Your task to perform on an android device: turn off wifi Image 0: 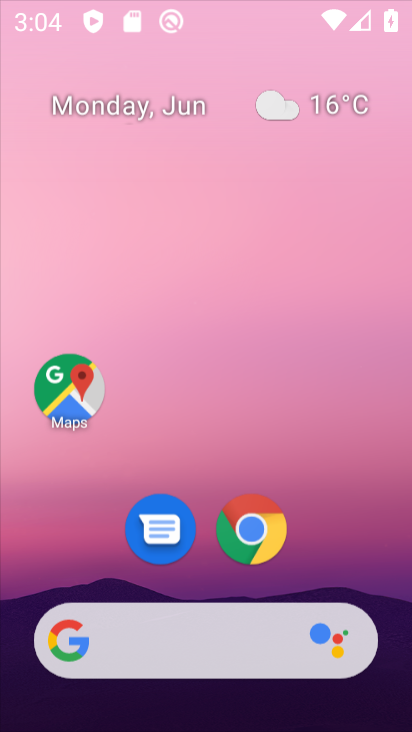
Step 0: click (219, 168)
Your task to perform on an android device: turn off wifi Image 1: 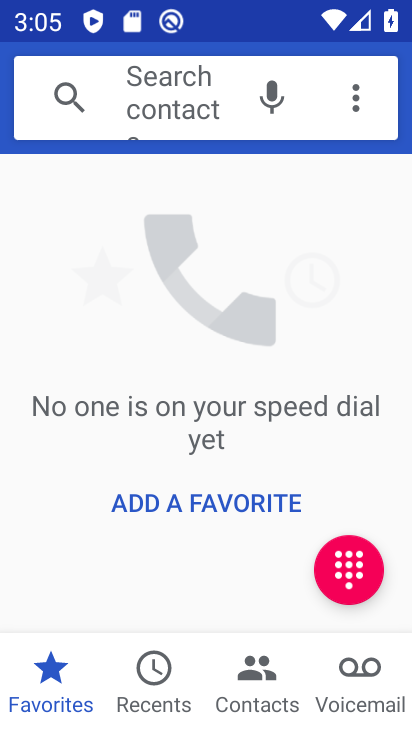
Step 1: press home button
Your task to perform on an android device: turn off wifi Image 2: 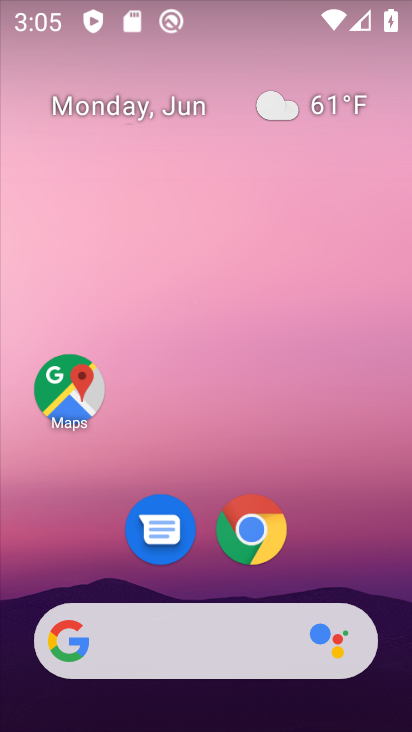
Step 2: press back button
Your task to perform on an android device: turn off wifi Image 3: 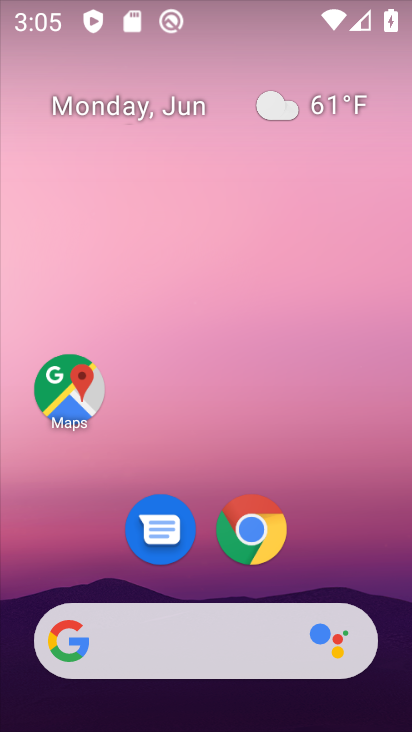
Step 3: click (216, 23)
Your task to perform on an android device: turn off wifi Image 4: 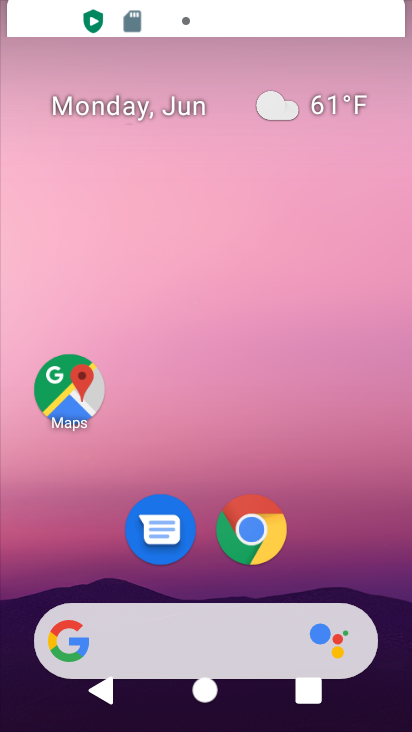
Step 4: drag from (228, 398) to (224, 5)
Your task to perform on an android device: turn off wifi Image 5: 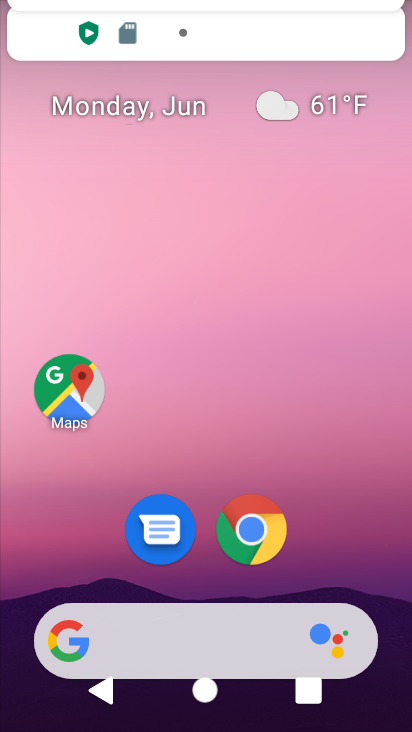
Step 5: drag from (255, 649) to (242, 74)
Your task to perform on an android device: turn off wifi Image 6: 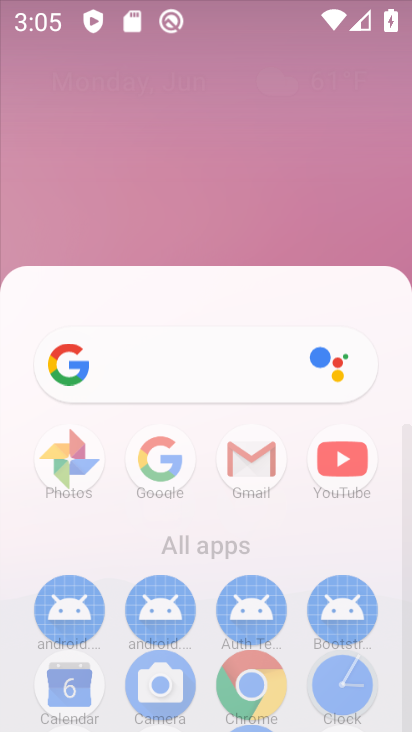
Step 6: drag from (256, 386) to (215, 77)
Your task to perform on an android device: turn off wifi Image 7: 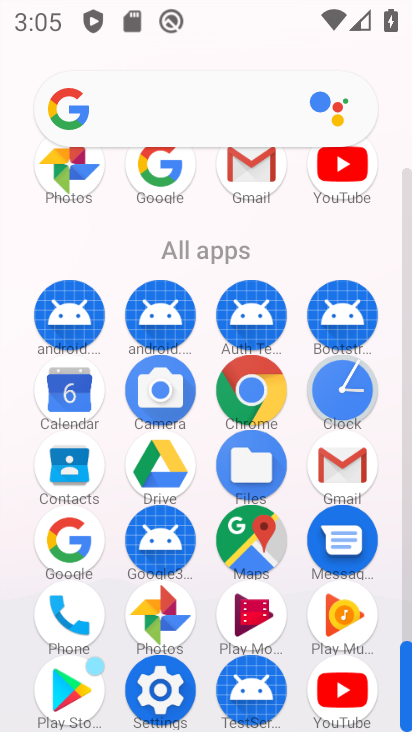
Step 7: drag from (242, 593) to (226, 261)
Your task to perform on an android device: turn off wifi Image 8: 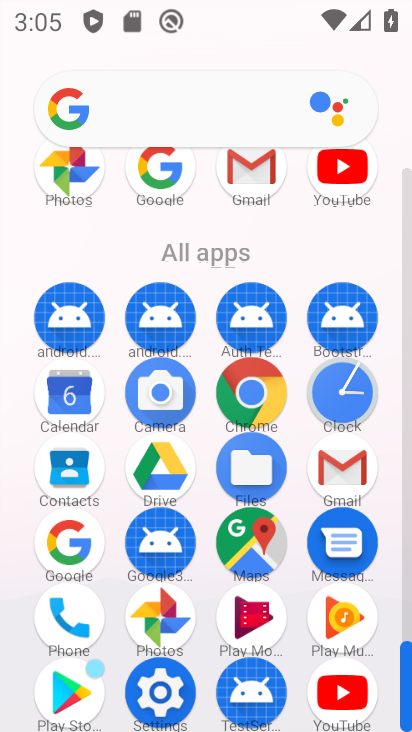
Step 8: drag from (152, 273) to (202, 670)
Your task to perform on an android device: turn off wifi Image 9: 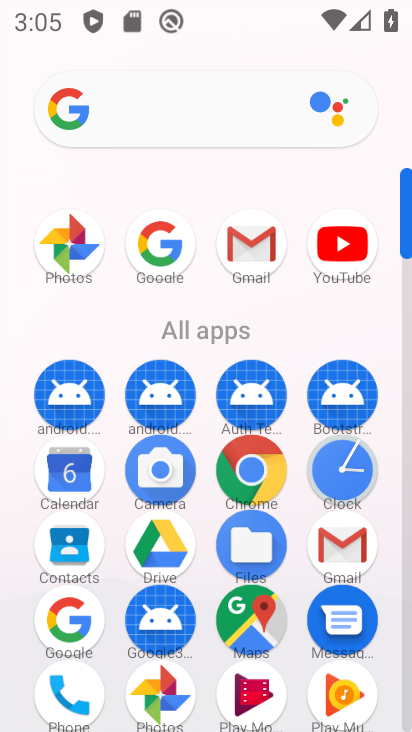
Step 9: drag from (157, 289) to (206, 557)
Your task to perform on an android device: turn off wifi Image 10: 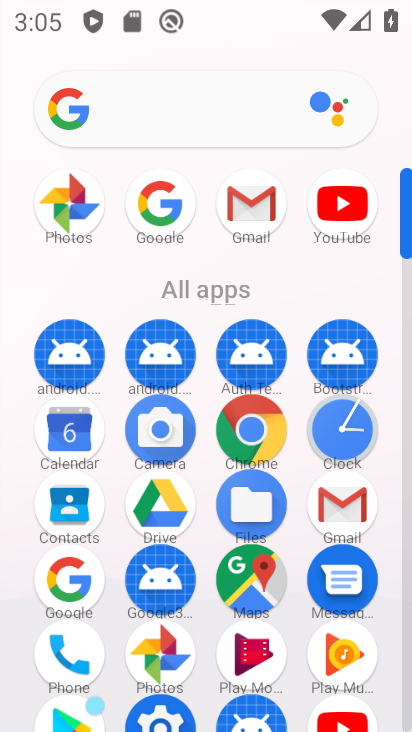
Step 10: drag from (212, 372) to (208, 151)
Your task to perform on an android device: turn off wifi Image 11: 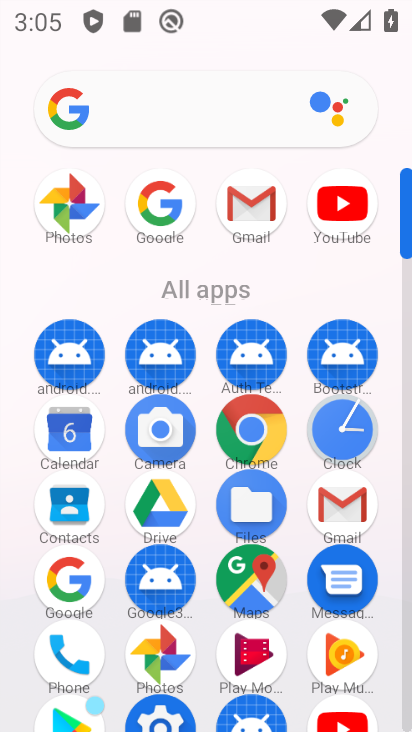
Step 11: drag from (177, 466) to (172, 208)
Your task to perform on an android device: turn off wifi Image 12: 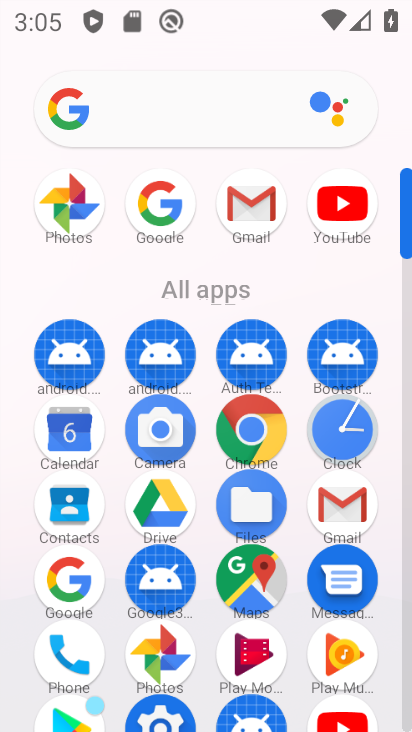
Step 12: click (153, 715)
Your task to perform on an android device: turn off wifi Image 13: 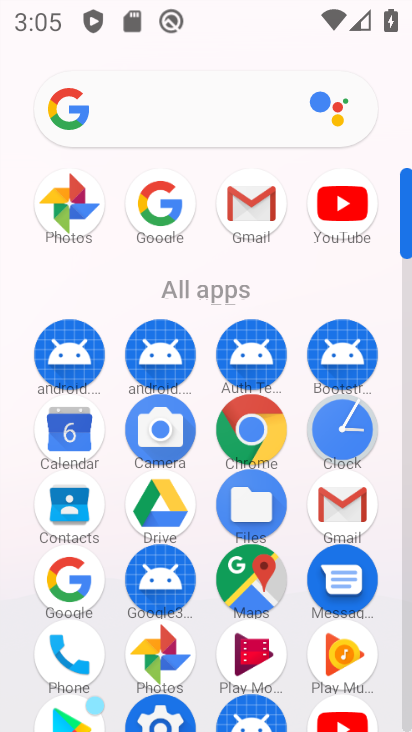
Step 13: click (153, 715)
Your task to perform on an android device: turn off wifi Image 14: 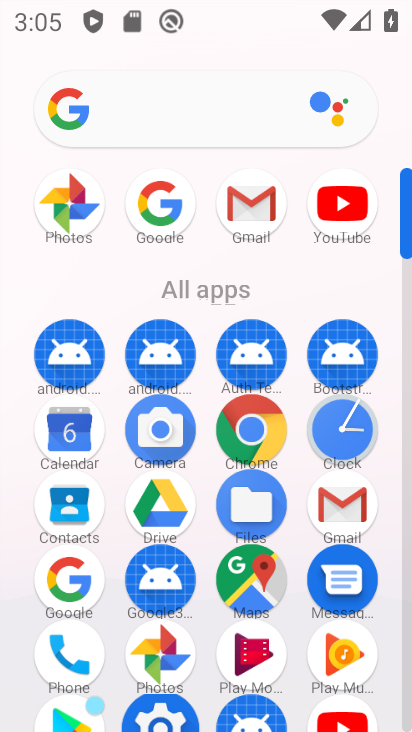
Step 14: click (153, 715)
Your task to perform on an android device: turn off wifi Image 15: 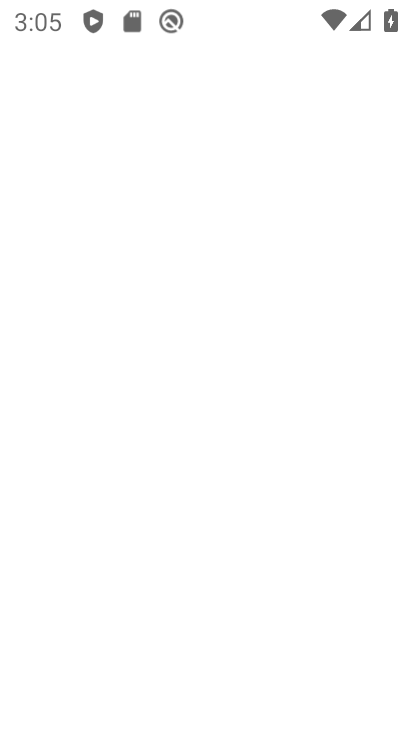
Step 15: click (153, 716)
Your task to perform on an android device: turn off wifi Image 16: 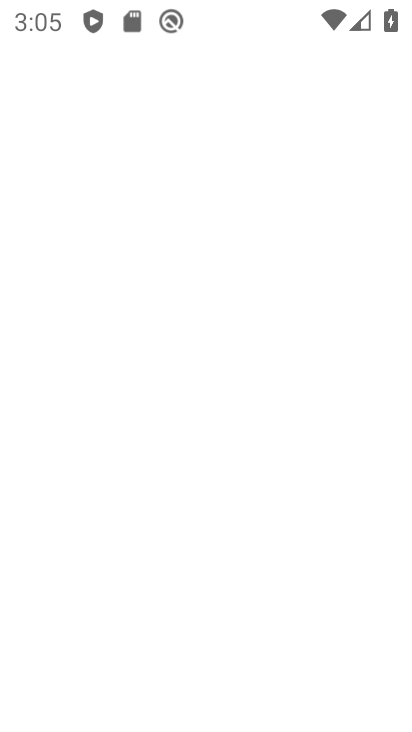
Step 16: click (153, 716)
Your task to perform on an android device: turn off wifi Image 17: 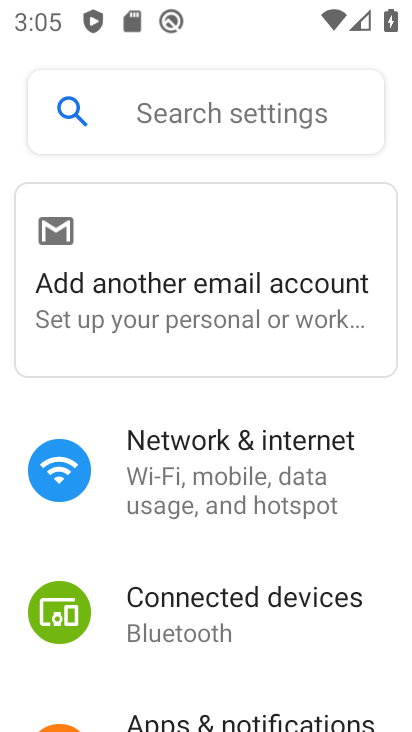
Step 17: click (218, 465)
Your task to perform on an android device: turn off wifi Image 18: 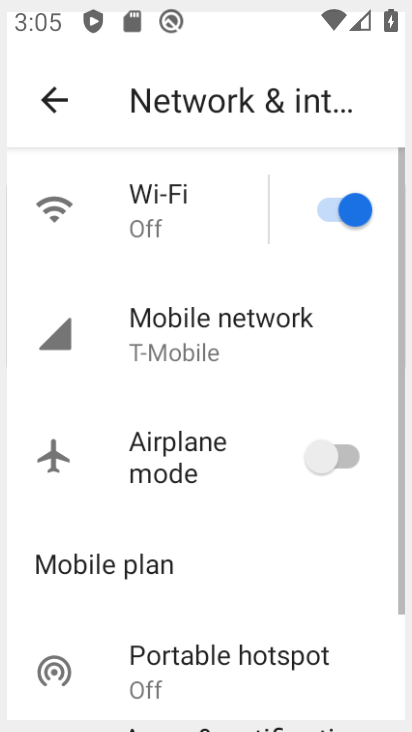
Step 18: click (221, 466)
Your task to perform on an android device: turn off wifi Image 19: 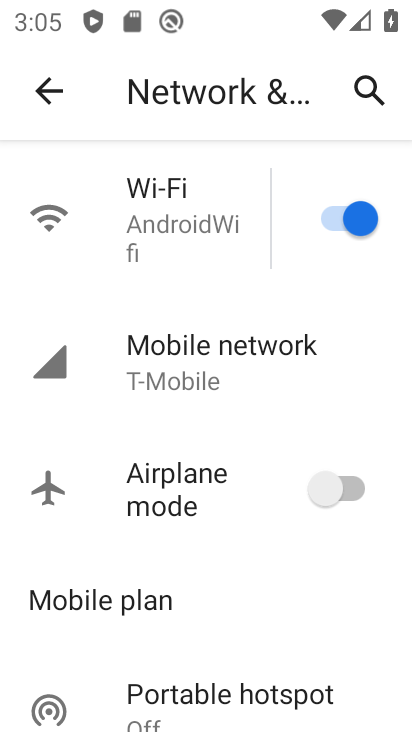
Step 19: click (362, 207)
Your task to perform on an android device: turn off wifi Image 20: 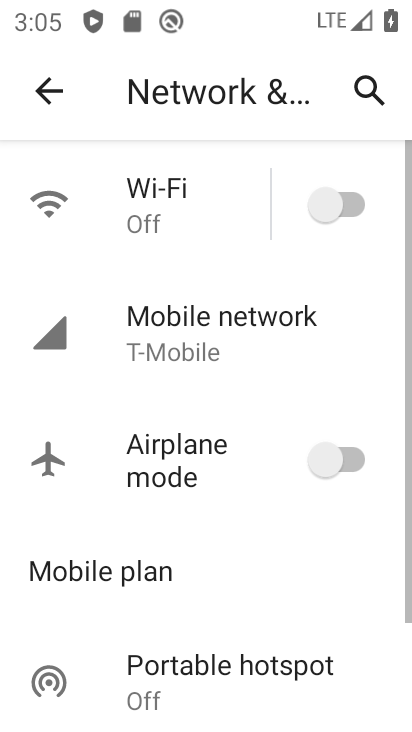
Step 20: task complete